Your task to perform on an android device: Open Maps and search for coffee Image 0: 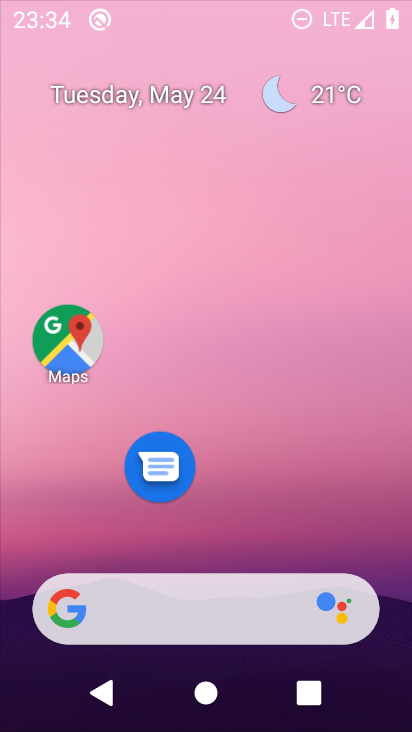
Step 0: click (273, 72)
Your task to perform on an android device: Open Maps and search for coffee Image 1: 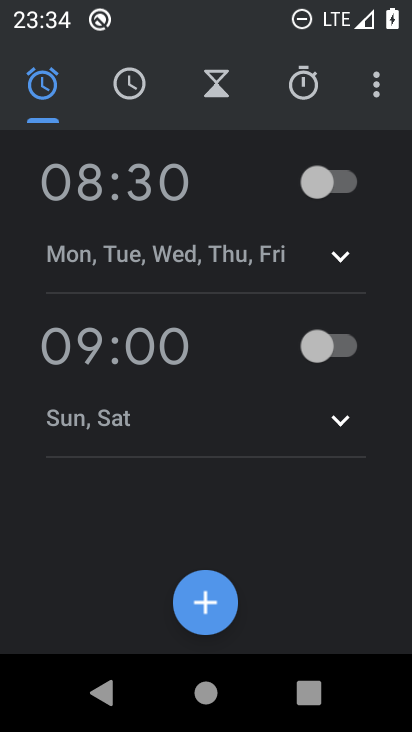
Step 1: press home button
Your task to perform on an android device: Open Maps and search for coffee Image 2: 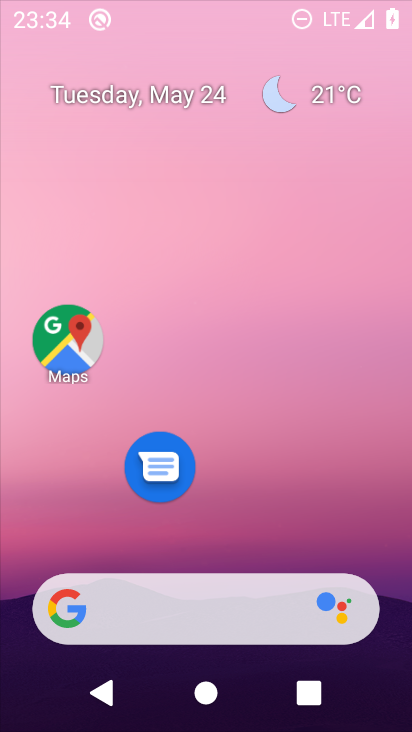
Step 2: drag from (263, 544) to (207, 113)
Your task to perform on an android device: Open Maps and search for coffee Image 3: 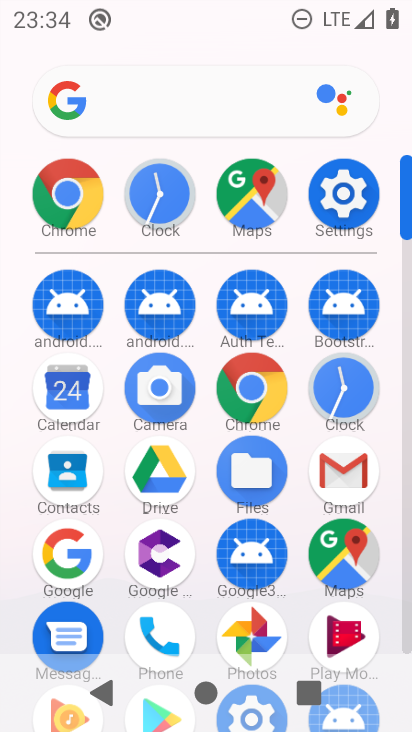
Step 3: click (335, 561)
Your task to perform on an android device: Open Maps and search for coffee Image 4: 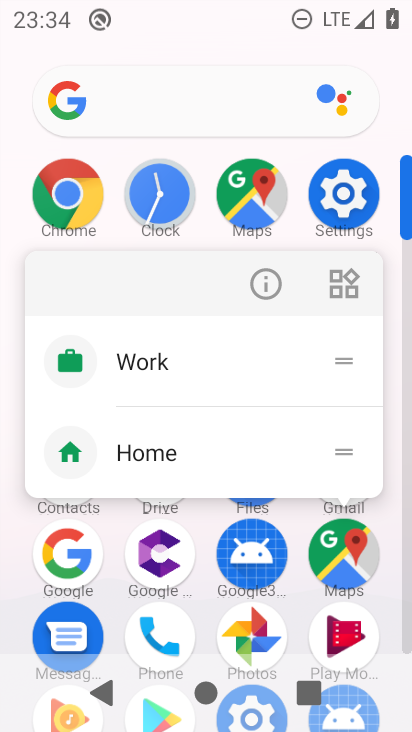
Step 4: click (272, 281)
Your task to perform on an android device: Open Maps and search for coffee Image 5: 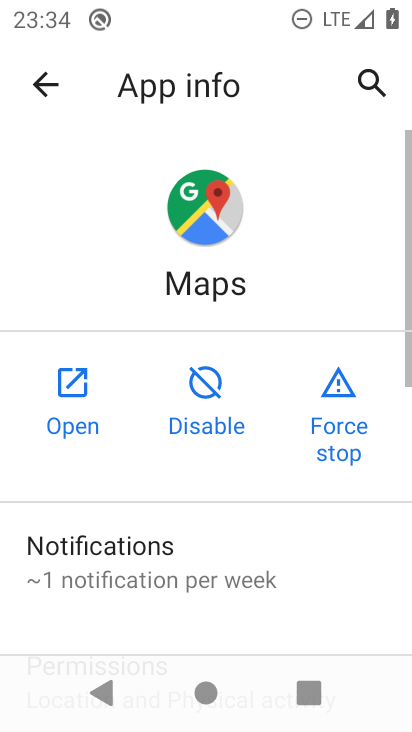
Step 5: click (77, 439)
Your task to perform on an android device: Open Maps and search for coffee Image 6: 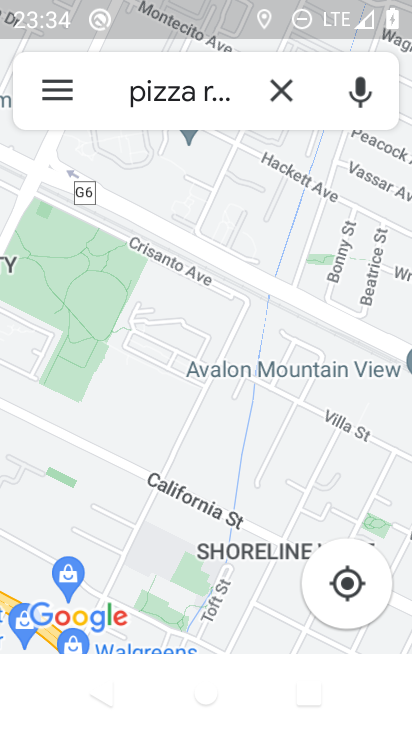
Step 6: click (277, 96)
Your task to perform on an android device: Open Maps and search for coffee Image 7: 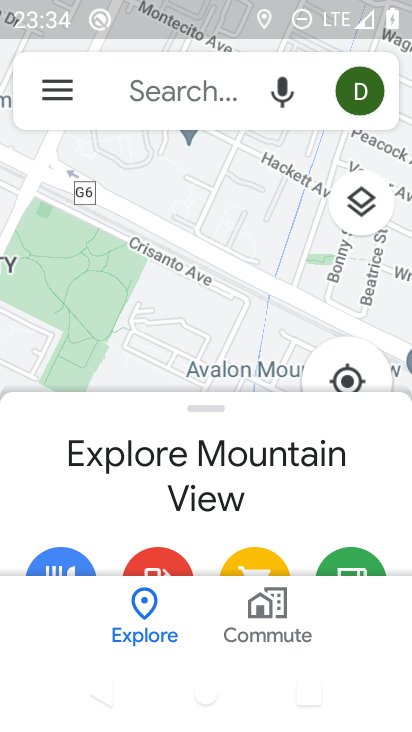
Step 7: click (171, 88)
Your task to perform on an android device: Open Maps and search for coffee Image 8: 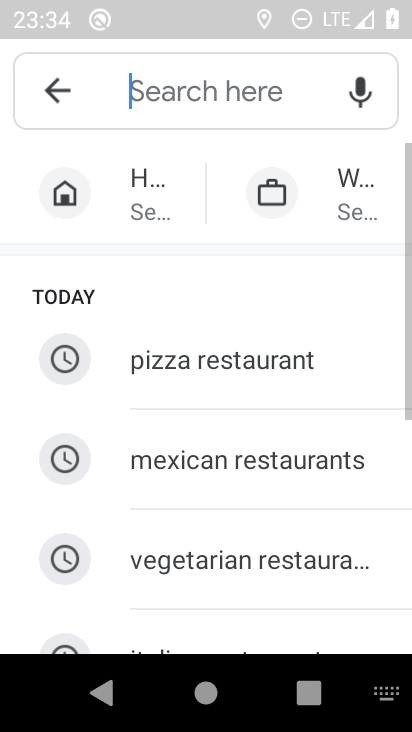
Step 8: drag from (204, 492) to (267, 83)
Your task to perform on an android device: Open Maps and search for coffee Image 9: 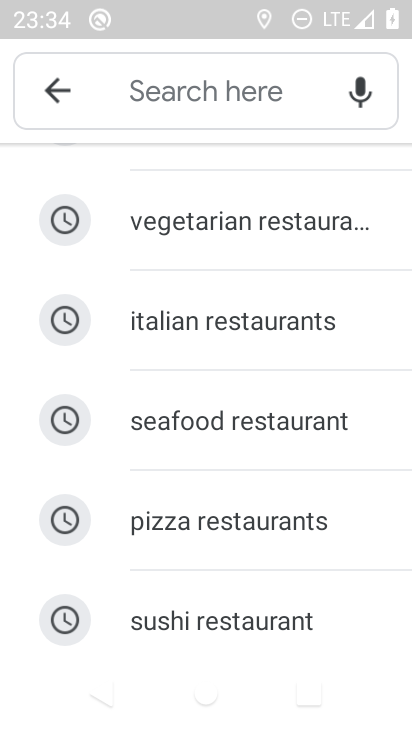
Step 9: drag from (229, 587) to (245, 204)
Your task to perform on an android device: Open Maps and search for coffee Image 10: 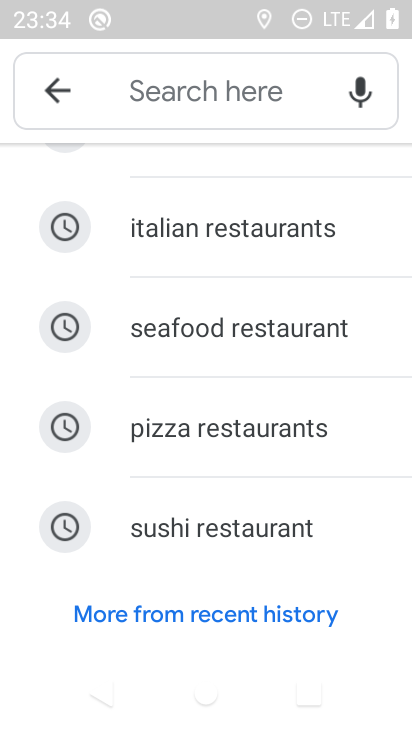
Step 10: click (158, 81)
Your task to perform on an android device: Open Maps and search for coffee Image 11: 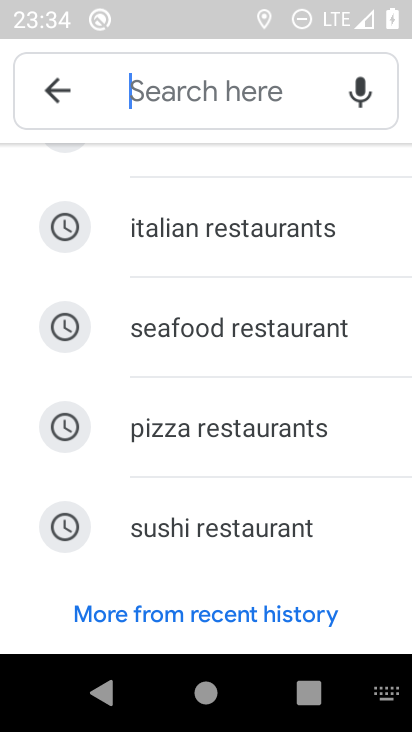
Step 11: type "coffee"
Your task to perform on an android device: Open Maps and search for coffee Image 12: 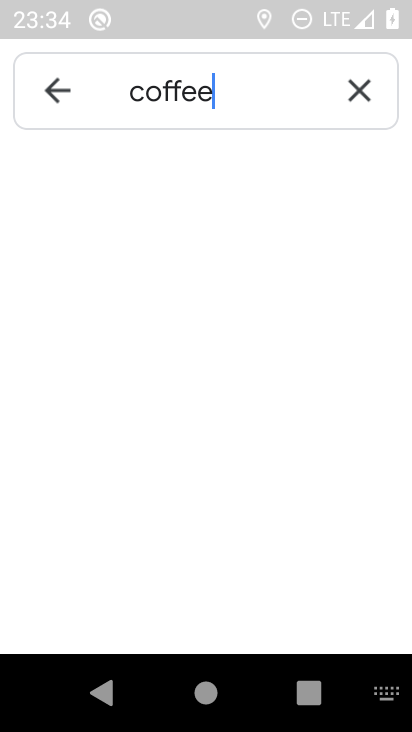
Step 12: type ""
Your task to perform on an android device: Open Maps and search for coffee Image 13: 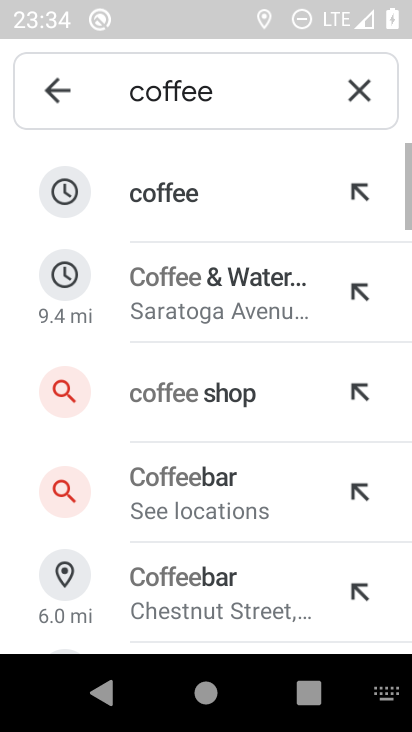
Step 13: click (176, 208)
Your task to perform on an android device: Open Maps and search for coffee Image 14: 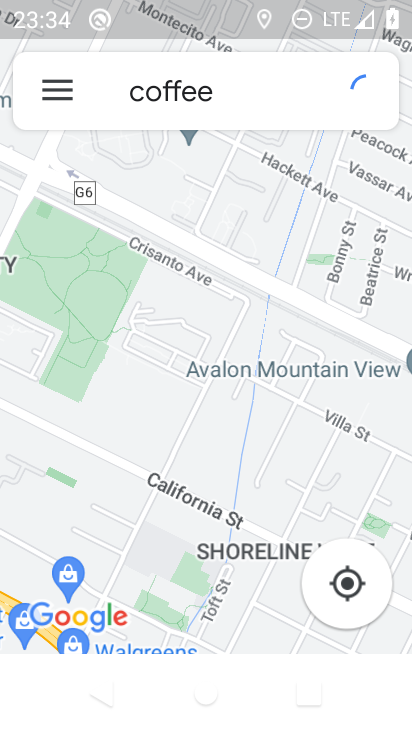
Step 14: task complete